Your task to perform on an android device: see tabs open on other devices in the chrome app Image 0: 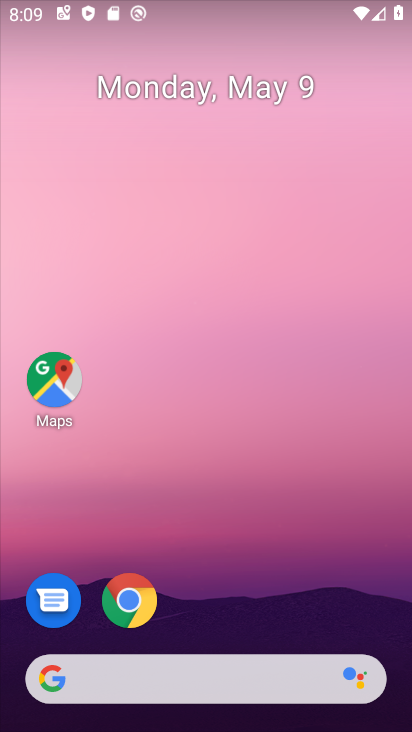
Step 0: drag from (209, 560) to (168, 16)
Your task to perform on an android device: see tabs open on other devices in the chrome app Image 1: 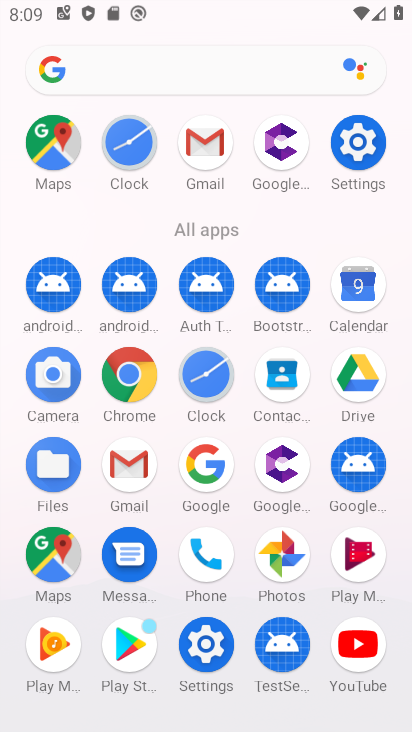
Step 1: click (127, 374)
Your task to perform on an android device: see tabs open on other devices in the chrome app Image 2: 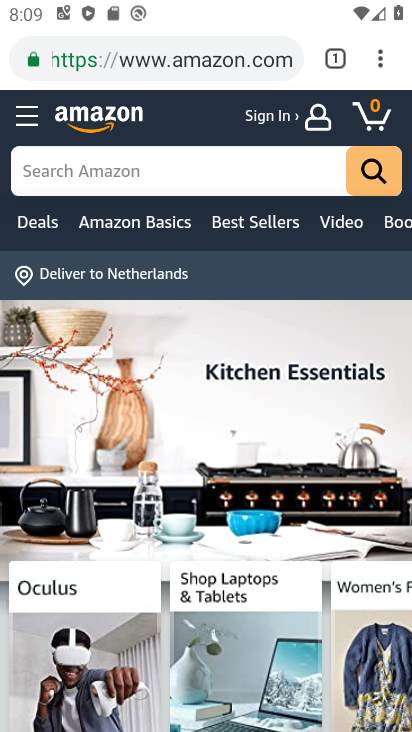
Step 2: task complete